Your task to perform on an android device: turn on the 12-hour format for clock Image 0: 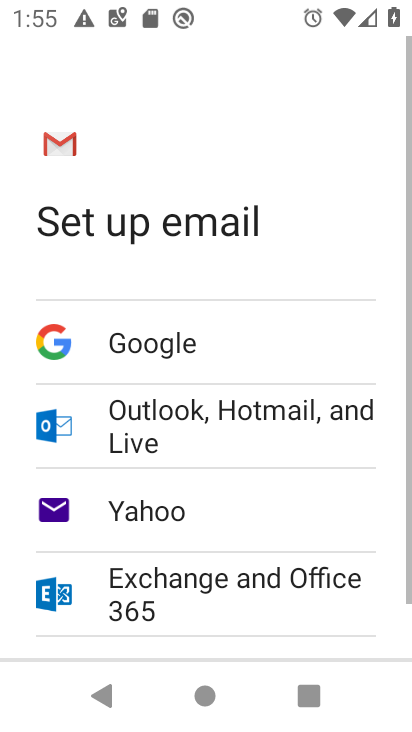
Step 0: press back button
Your task to perform on an android device: turn on the 12-hour format for clock Image 1: 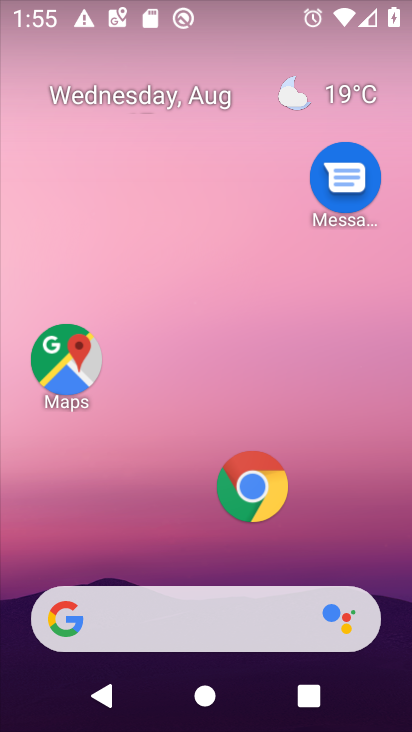
Step 1: drag from (120, 531) to (246, 53)
Your task to perform on an android device: turn on the 12-hour format for clock Image 2: 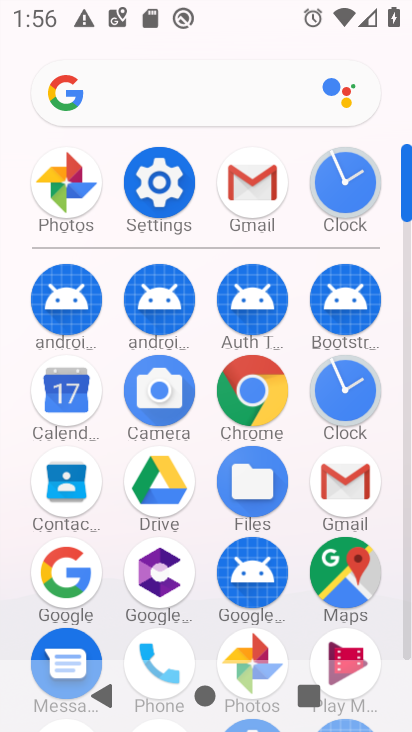
Step 2: click (360, 390)
Your task to perform on an android device: turn on the 12-hour format for clock Image 3: 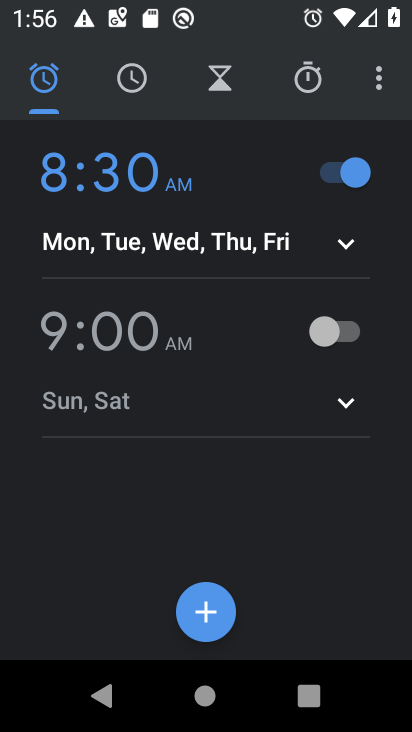
Step 3: click (381, 77)
Your task to perform on an android device: turn on the 12-hour format for clock Image 4: 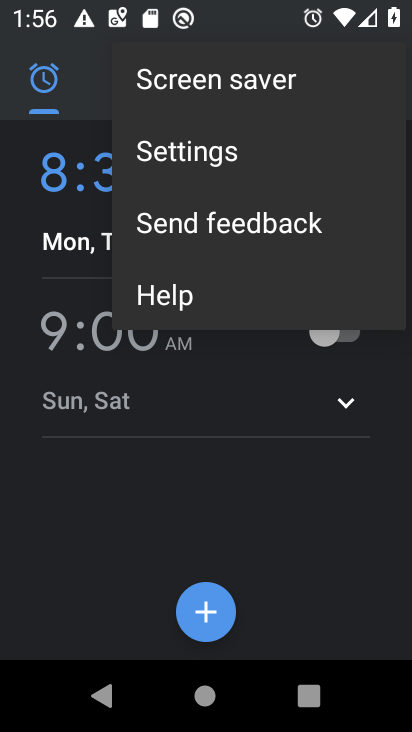
Step 4: click (209, 151)
Your task to perform on an android device: turn on the 12-hour format for clock Image 5: 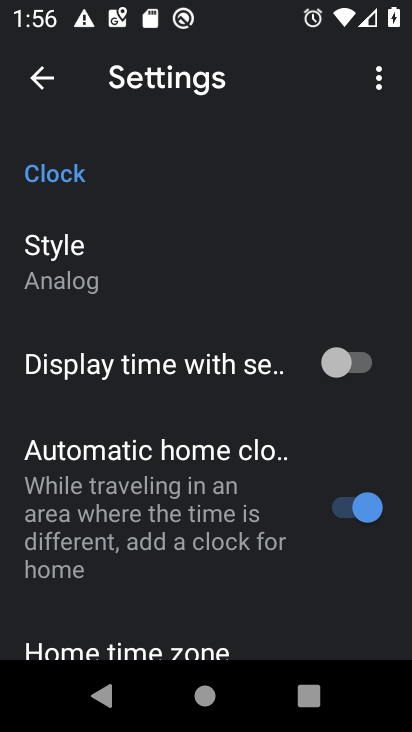
Step 5: drag from (199, 617) to (311, 121)
Your task to perform on an android device: turn on the 12-hour format for clock Image 6: 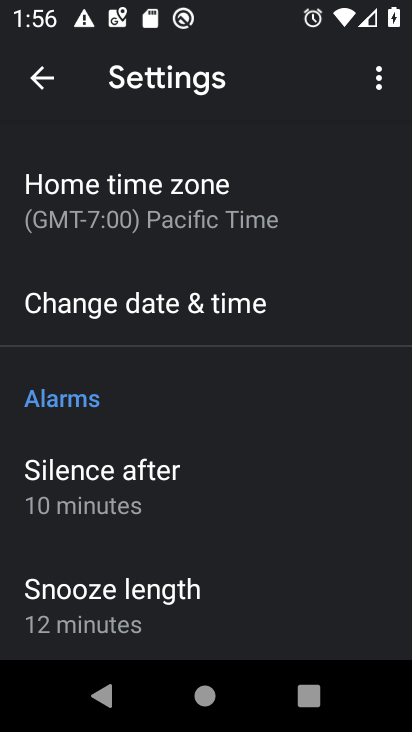
Step 6: click (164, 304)
Your task to perform on an android device: turn on the 12-hour format for clock Image 7: 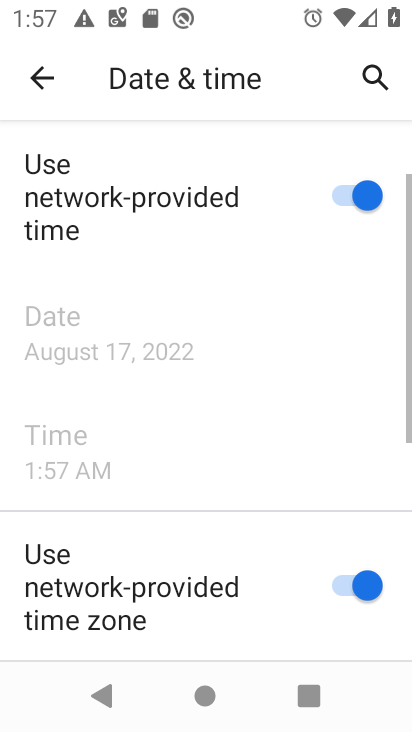
Step 7: task complete